Your task to perform on an android device: toggle pop-ups in chrome Image 0: 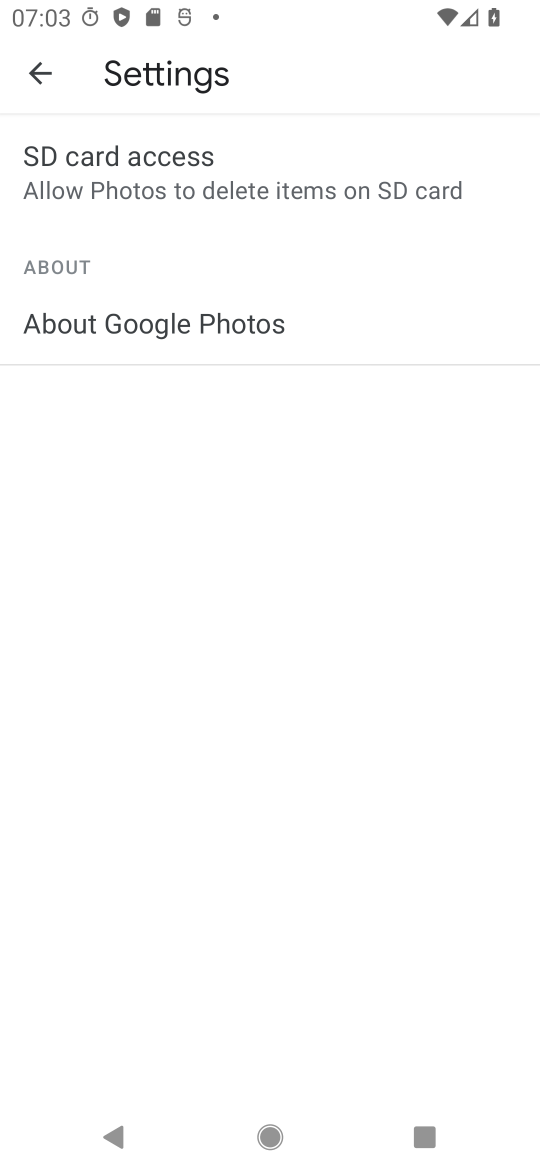
Step 0: press home button
Your task to perform on an android device: toggle pop-ups in chrome Image 1: 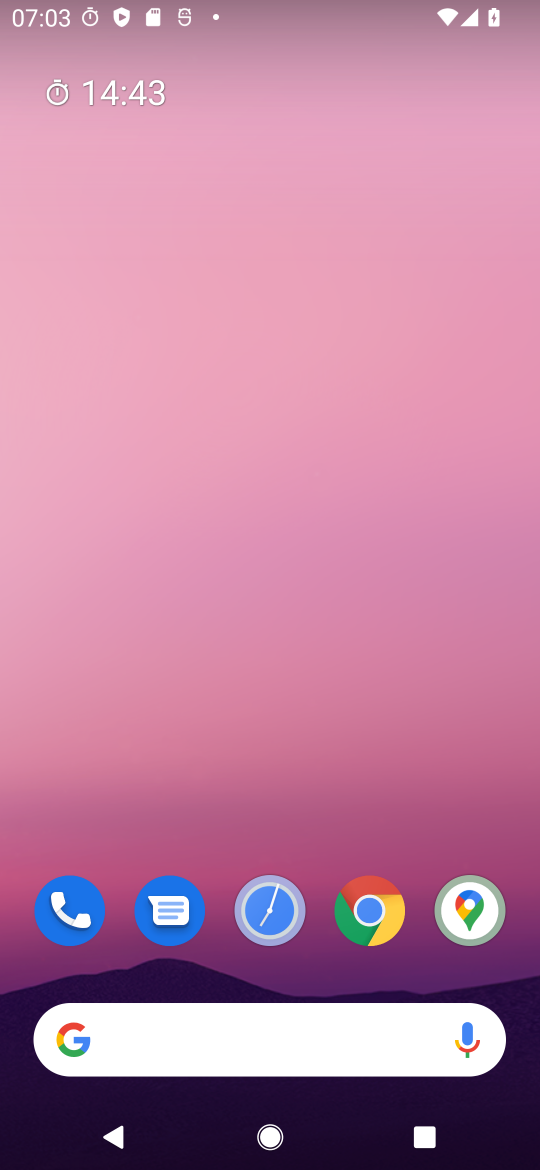
Step 1: drag from (301, 1021) to (261, 94)
Your task to perform on an android device: toggle pop-ups in chrome Image 2: 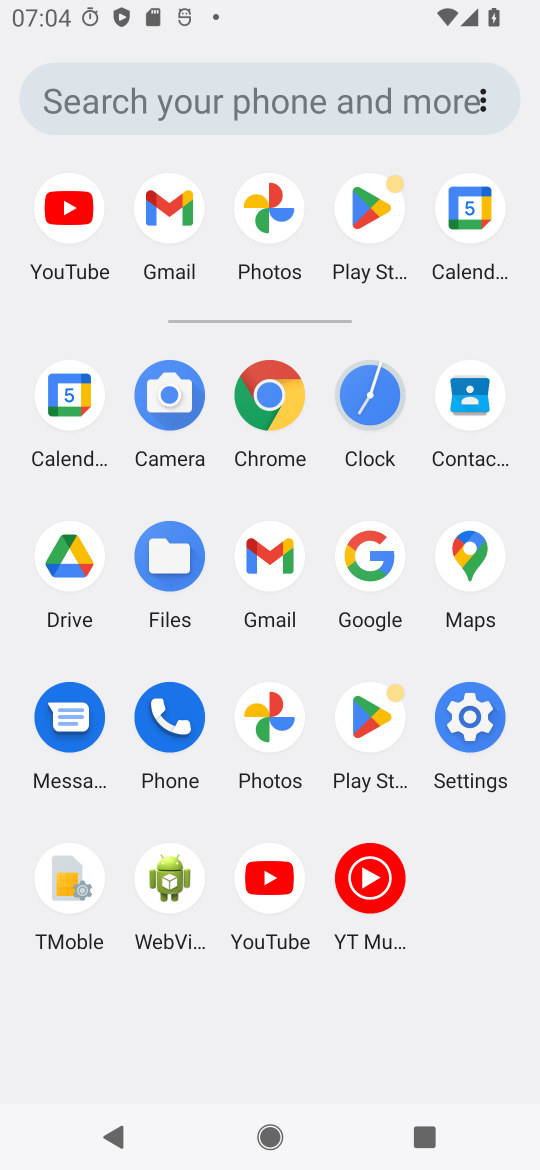
Step 2: click (283, 386)
Your task to perform on an android device: toggle pop-ups in chrome Image 3: 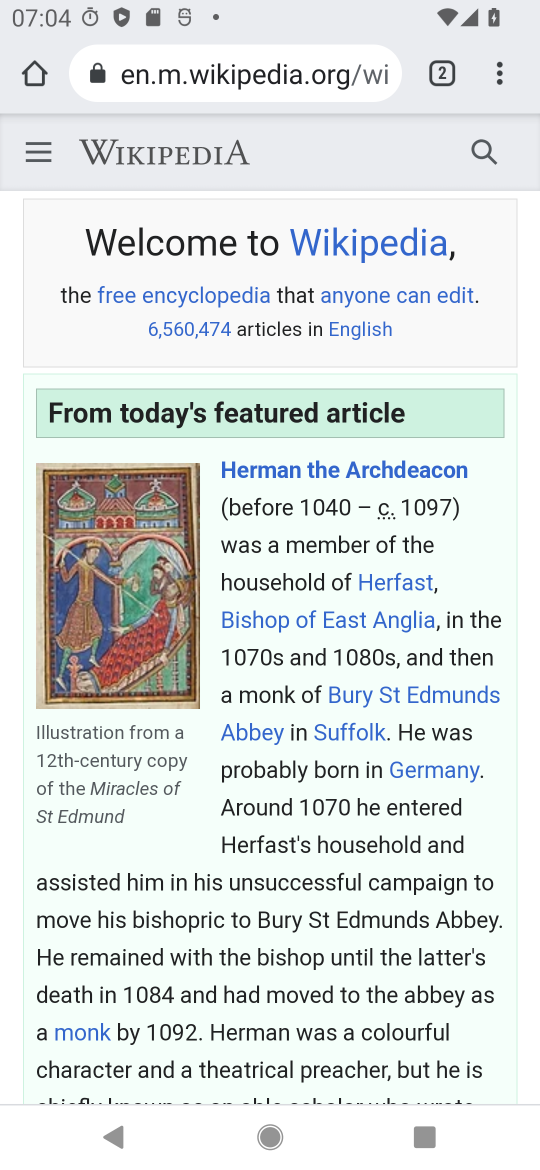
Step 3: click (504, 76)
Your task to perform on an android device: toggle pop-ups in chrome Image 4: 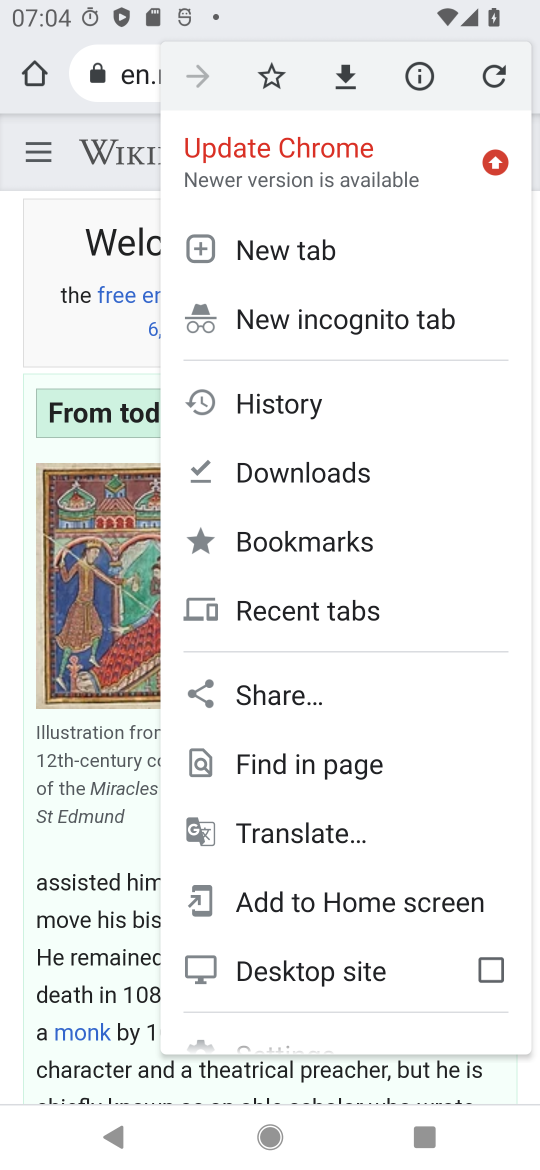
Step 4: drag from (350, 943) to (360, 444)
Your task to perform on an android device: toggle pop-ups in chrome Image 5: 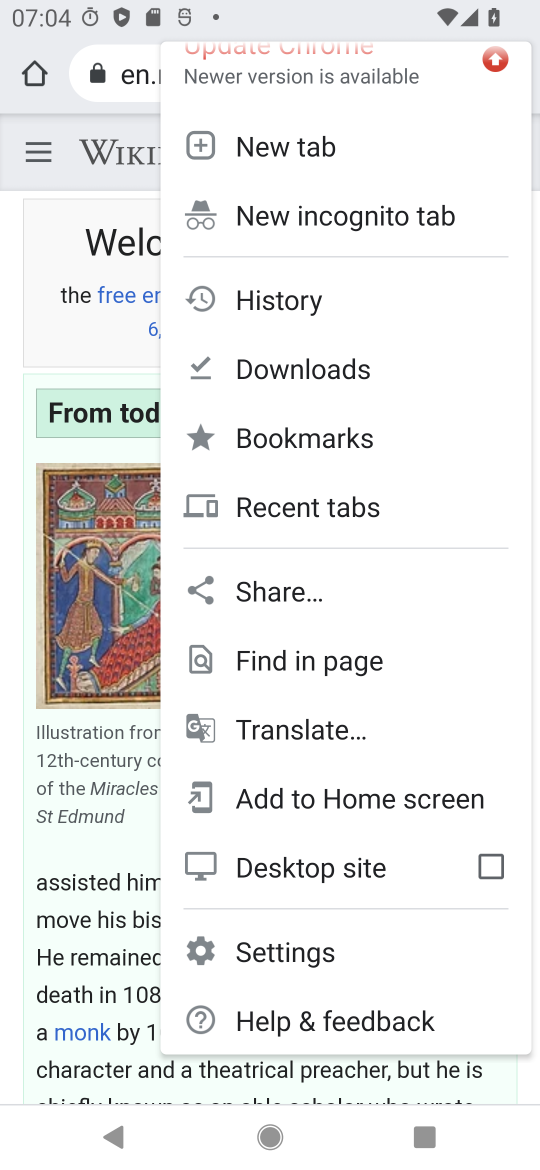
Step 5: click (304, 949)
Your task to perform on an android device: toggle pop-ups in chrome Image 6: 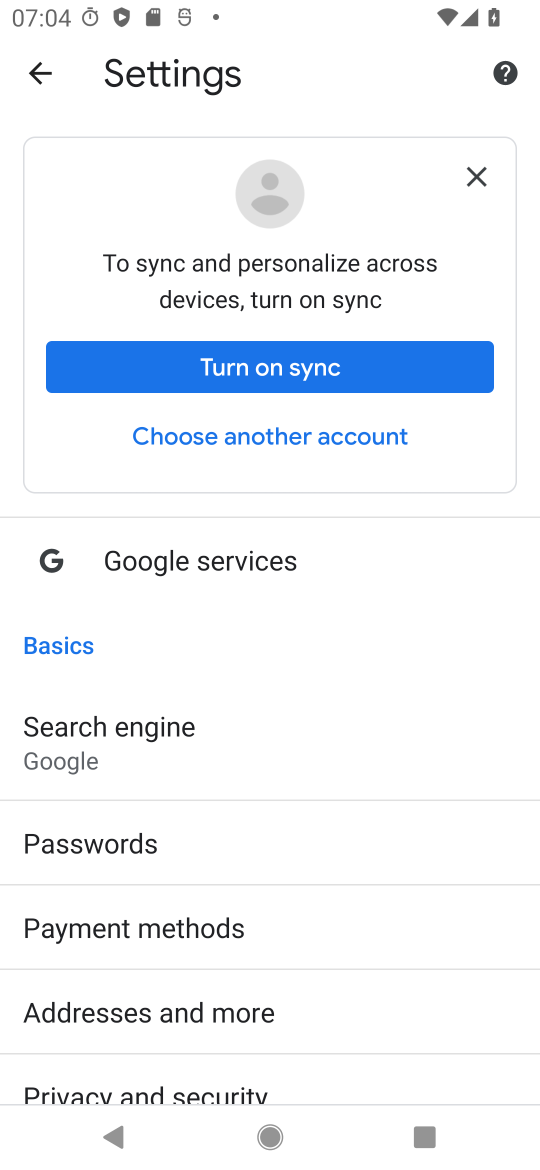
Step 6: drag from (304, 949) to (330, 303)
Your task to perform on an android device: toggle pop-ups in chrome Image 7: 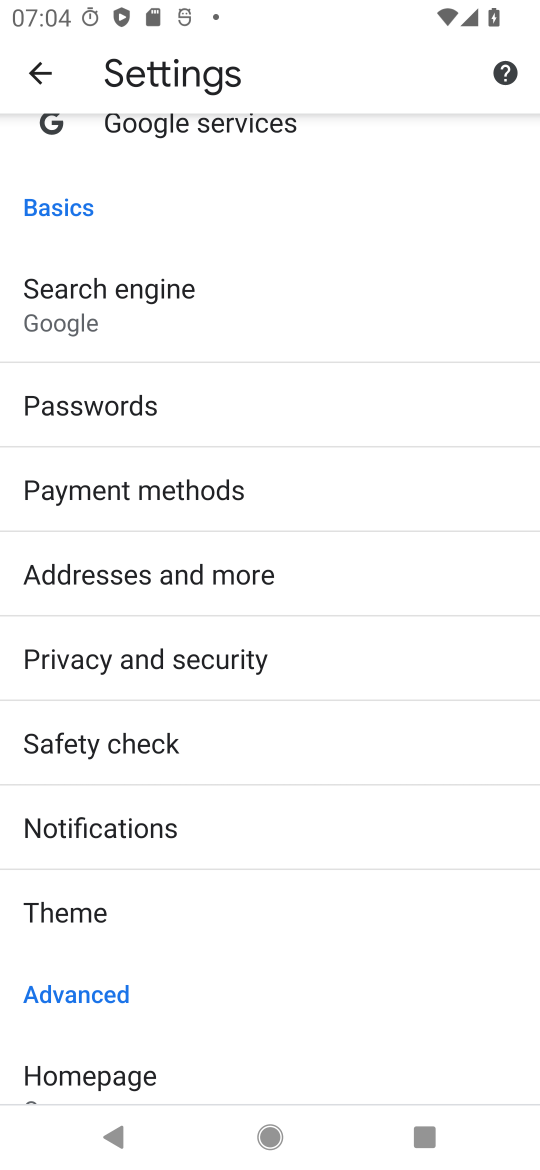
Step 7: drag from (353, 991) to (412, 300)
Your task to perform on an android device: toggle pop-ups in chrome Image 8: 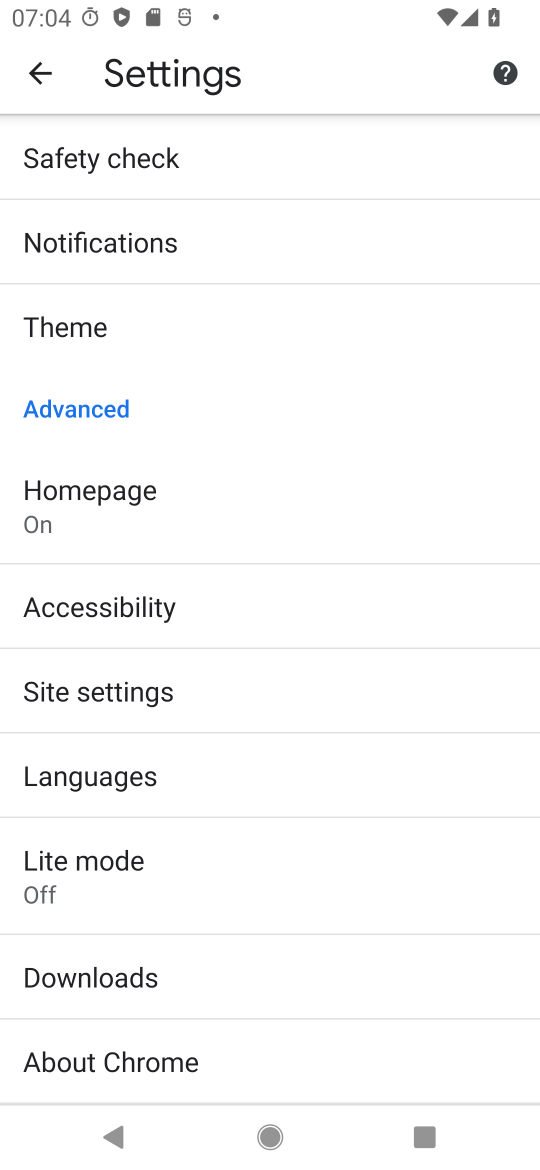
Step 8: click (77, 680)
Your task to perform on an android device: toggle pop-ups in chrome Image 9: 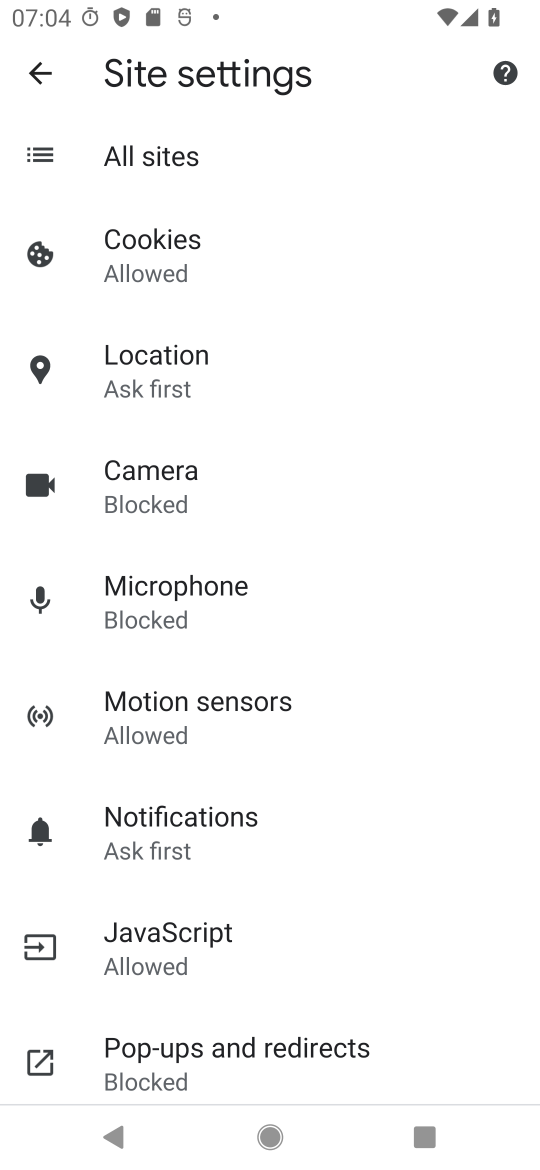
Step 9: click (180, 1048)
Your task to perform on an android device: toggle pop-ups in chrome Image 10: 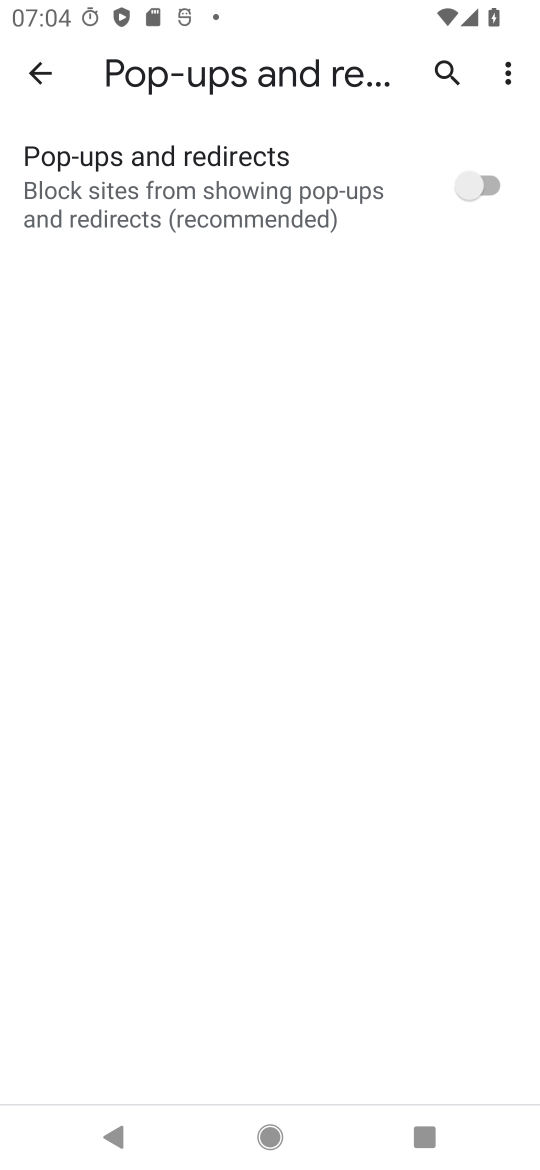
Step 10: click (487, 186)
Your task to perform on an android device: toggle pop-ups in chrome Image 11: 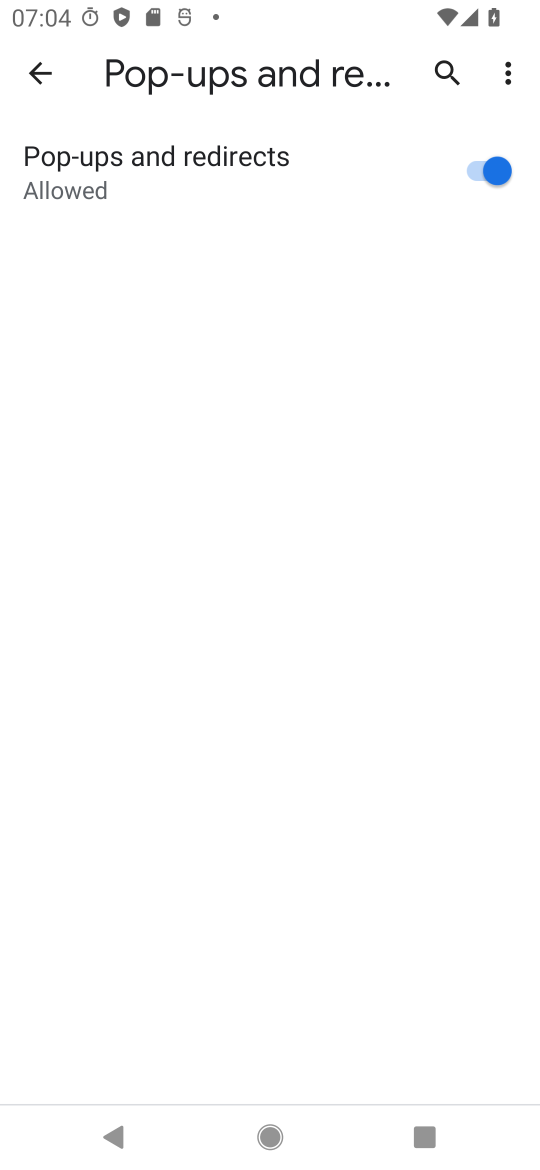
Step 11: task complete